Your task to perform on an android device: Open Chrome and go to the settings page Image 0: 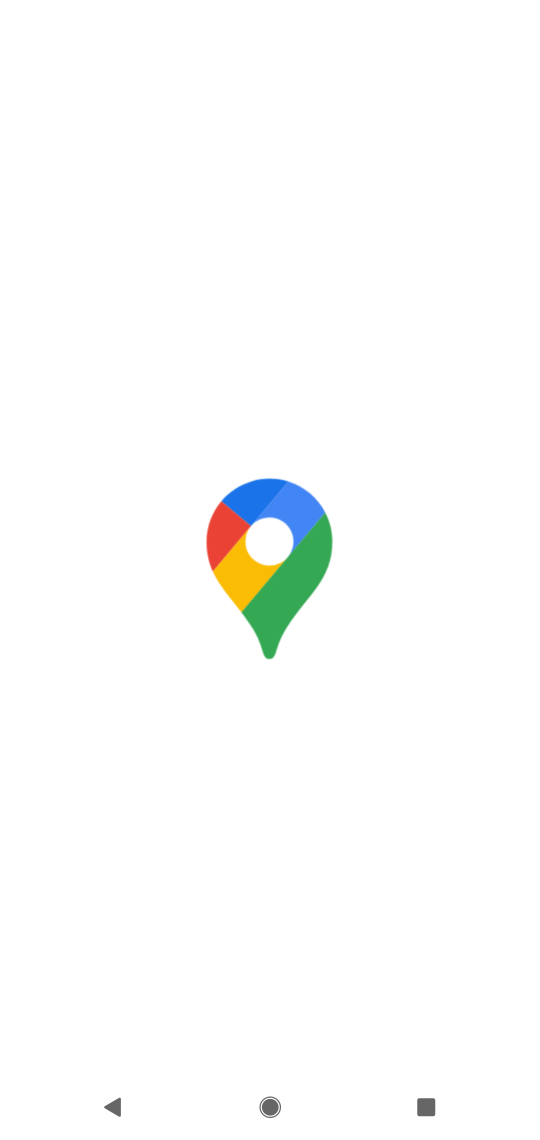
Step 0: press home button
Your task to perform on an android device: Open Chrome and go to the settings page Image 1: 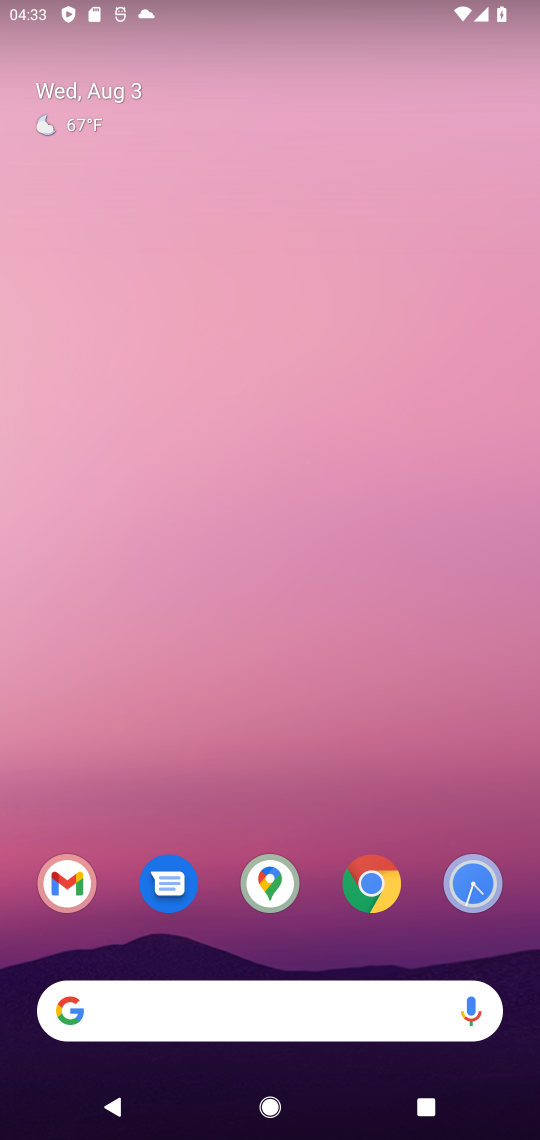
Step 1: click (390, 890)
Your task to perform on an android device: Open Chrome and go to the settings page Image 2: 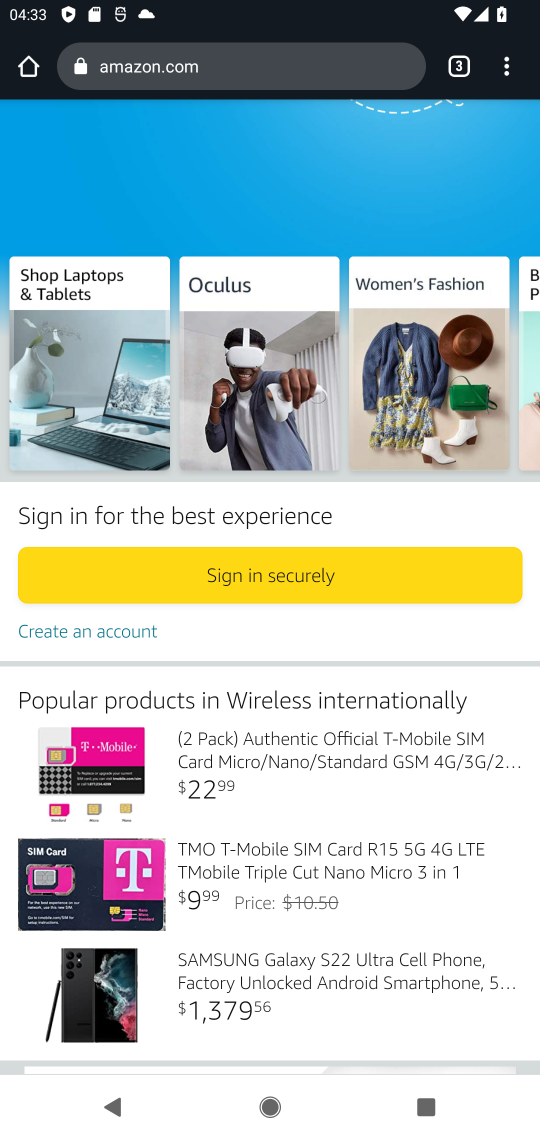
Step 2: click (495, 61)
Your task to perform on an android device: Open Chrome and go to the settings page Image 3: 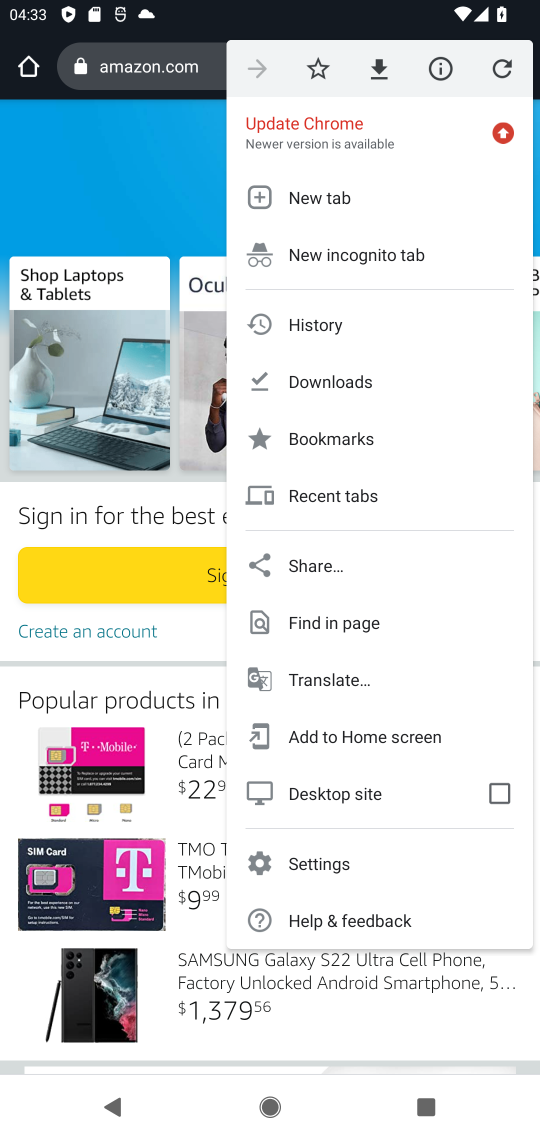
Step 3: click (324, 870)
Your task to perform on an android device: Open Chrome and go to the settings page Image 4: 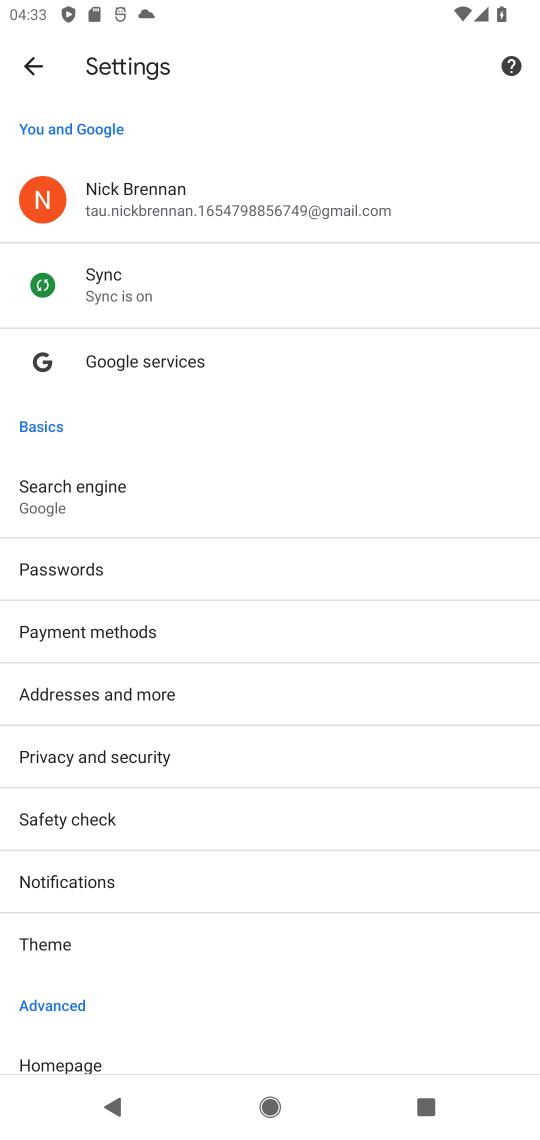
Step 4: task complete